Your task to perform on an android device: Open display settings Image 0: 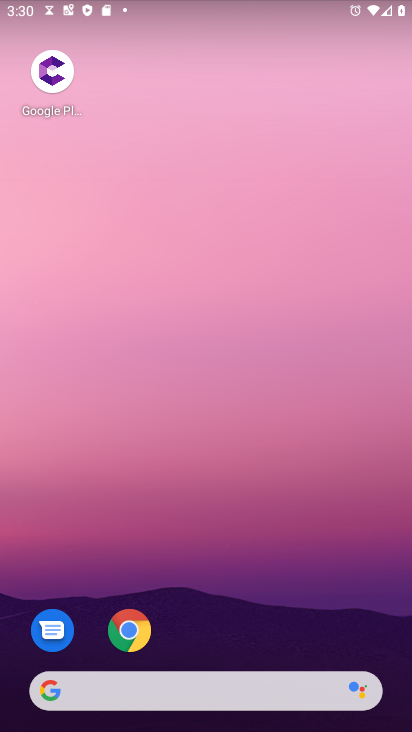
Step 0: drag from (21, 426) to (313, 705)
Your task to perform on an android device: Open display settings Image 1: 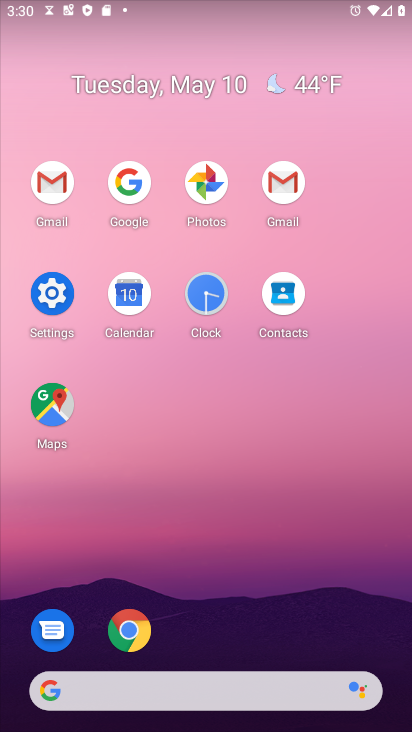
Step 1: click (46, 292)
Your task to perform on an android device: Open display settings Image 2: 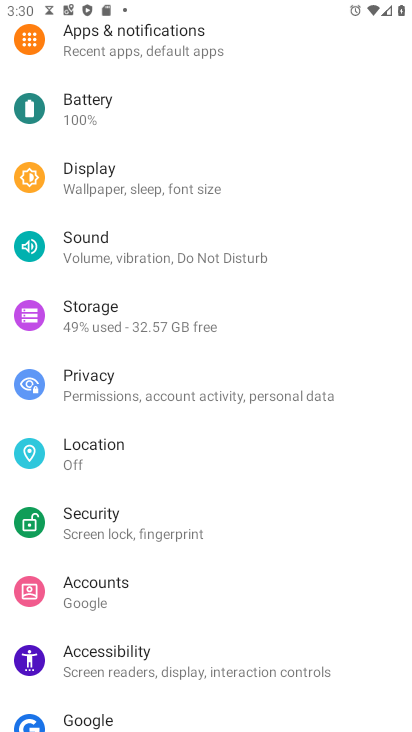
Step 2: click (167, 193)
Your task to perform on an android device: Open display settings Image 3: 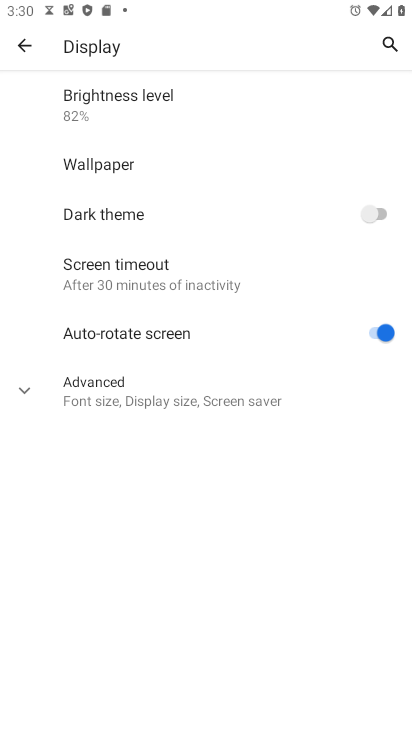
Step 3: task complete